Your task to perform on an android device: Set the phone to "Do not disturb". Image 0: 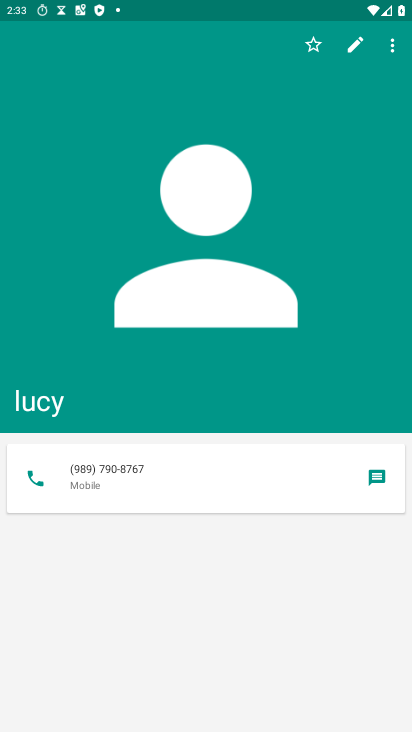
Step 0: press home button
Your task to perform on an android device: Set the phone to "Do not disturb". Image 1: 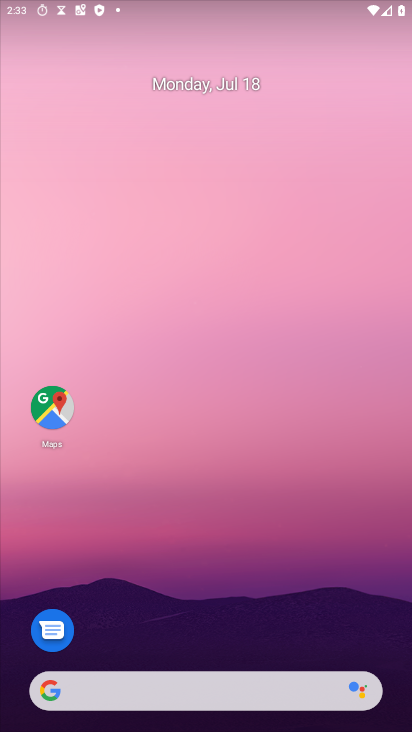
Step 1: drag from (250, 698) to (391, 0)
Your task to perform on an android device: Set the phone to "Do not disturb". Image 2: 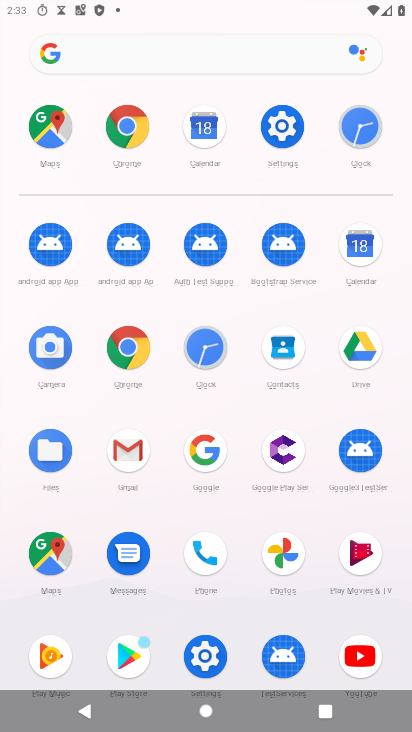
Step 2: click (268, 128)
Your task to perform on an android device: Set the phone to "Do not disturb". Image 3: 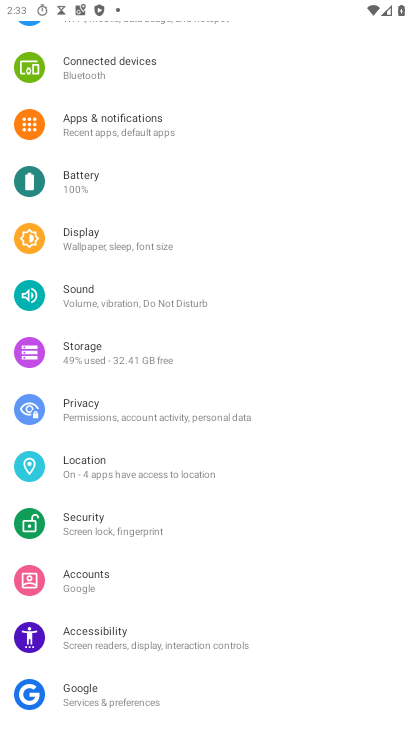
Step 3: click (130, 298)
Your task to perform on an android device: Set the phone to "Do not disturb". Image 4: 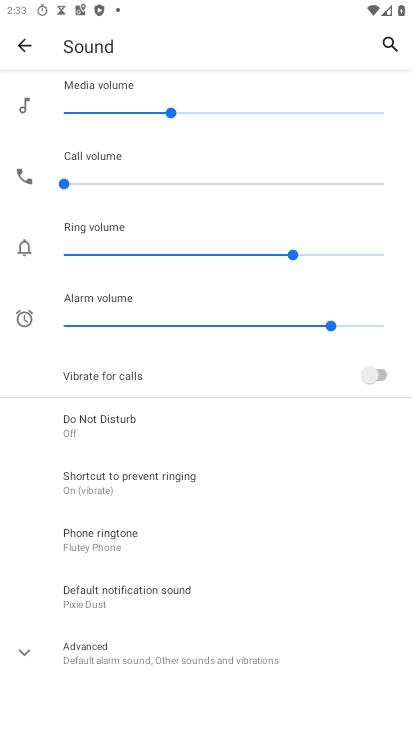
Step 4: click (150, 415)
Your task to perform on an android device: Set the phone to "Do not disturb". Image 5: 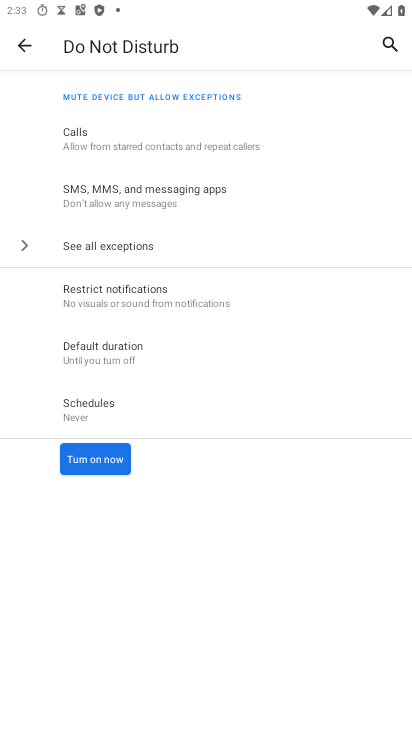
Step 5: click (105, 462)
Your task to perform on an android device: Set the phone to "Do not disturb". Image 6: 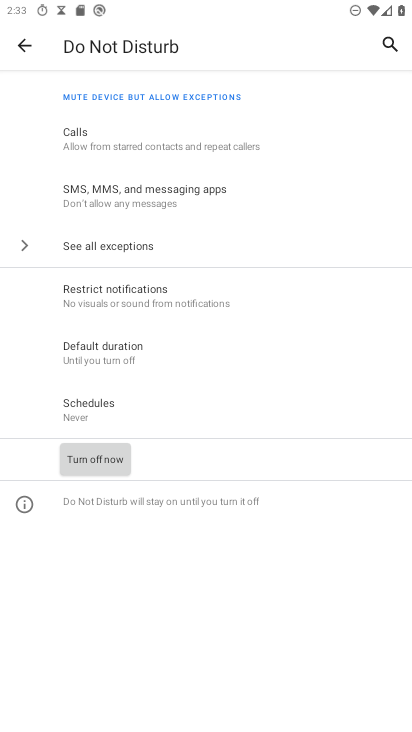
Step 6: task complete